Your task to perform on an android device: Open maps Image 0: 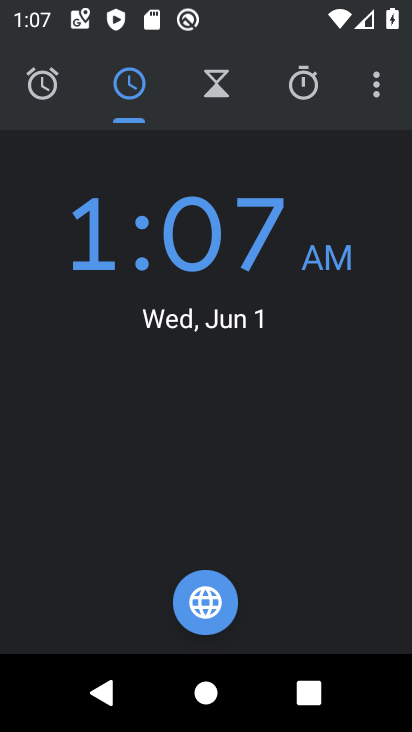
Step 0: press home button
Your task to perform on an android device: Open maps Image 1: 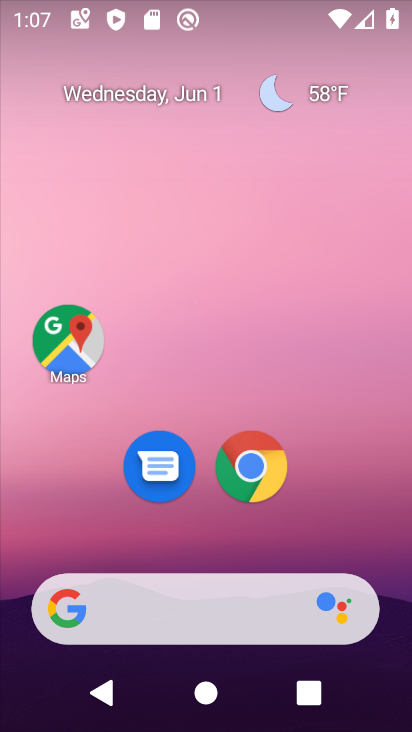
Step 1: click (65, 360)
Your task to perform on an android device: Open maps Image 2: 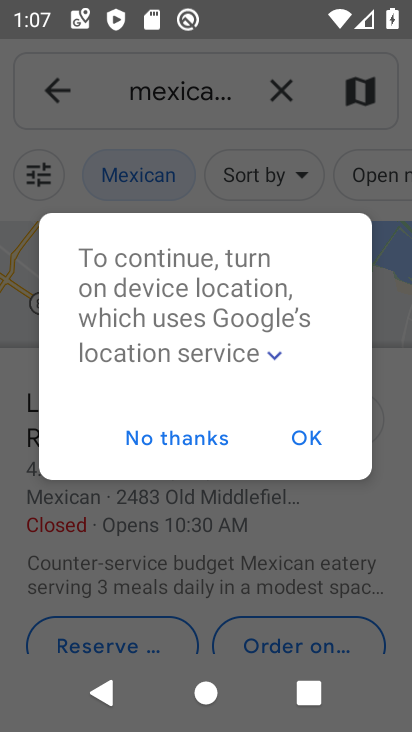
Step 2: click (198, 449)
Your task to perform on an android device: Open maps Image 3: 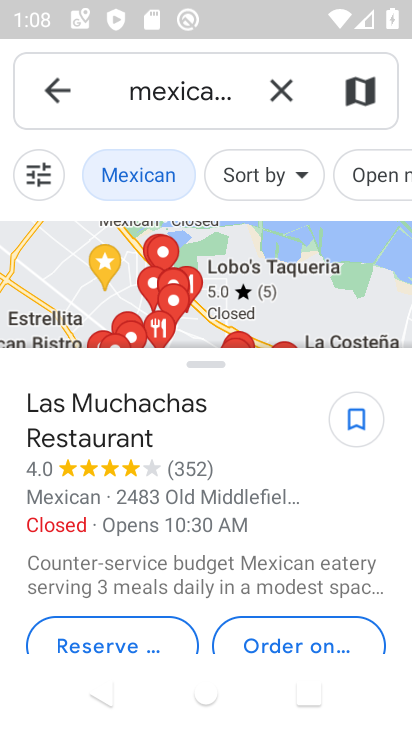
Step 3: task complete